Your task to perform on an android device: make emails show in primary in the gmail app Image 0: 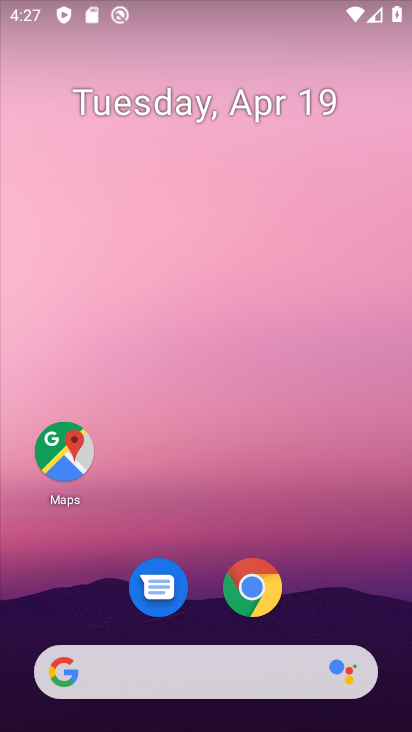
Step 0: drag from (339, 549) to (245, 37)
Your task to perform on an android device: make emails show in primary in the gmail app Image 1: 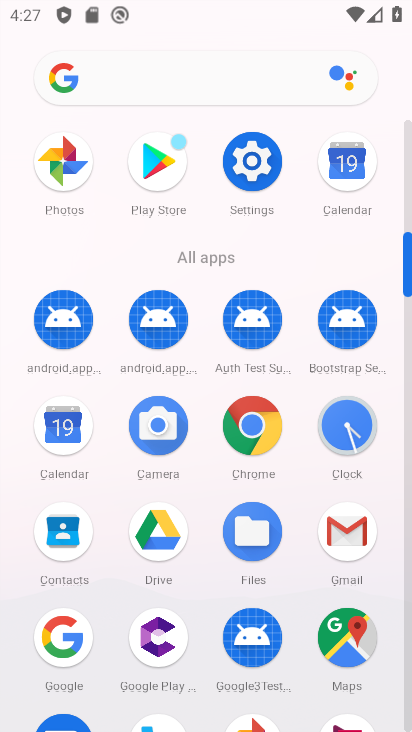
Step 1: drag from (22, 405) to (7, 169)
Your task to perform on an android device: make emails show in primary in the gmail app Image 2: 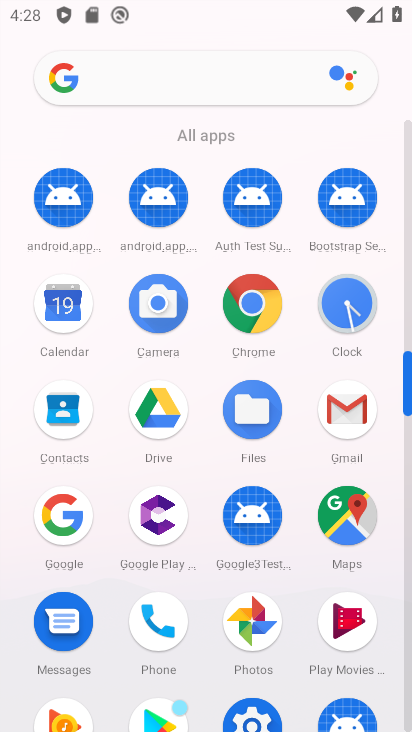
Step 2: click (346, 404)
Your task to perform on an android device: make emails show in primary in the gmail app Image 3: 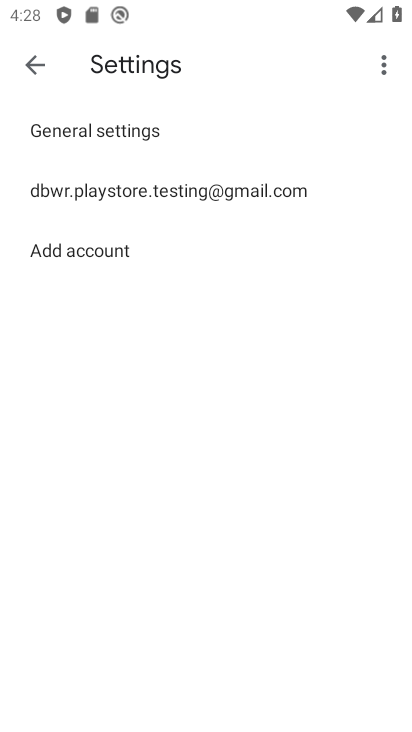
Step 3: click (53, 183)
Your task to perform on an android device: make emails show in primary in the gmail app Image 4: 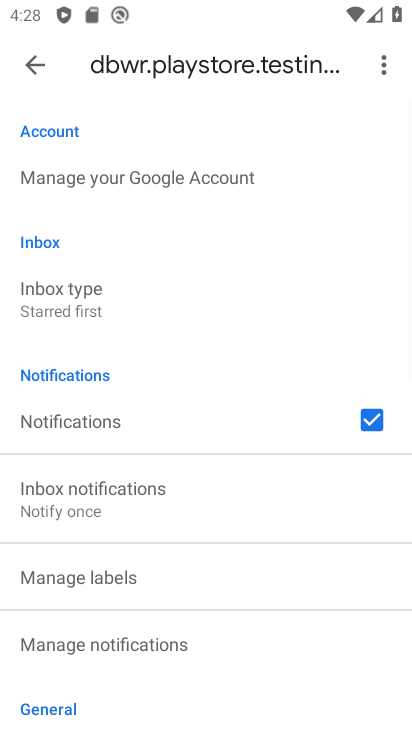
Step 4: click (85, 308)
Your task to perform on an android device: make emails show in primary in the gmail app Image 5: 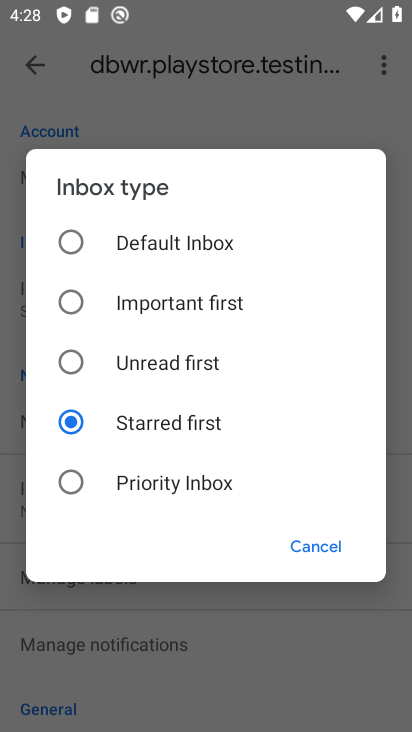
Step 5: click (171, 234)
Your task to perform on an android device: make emails show in primary in the gmail app Image 6: 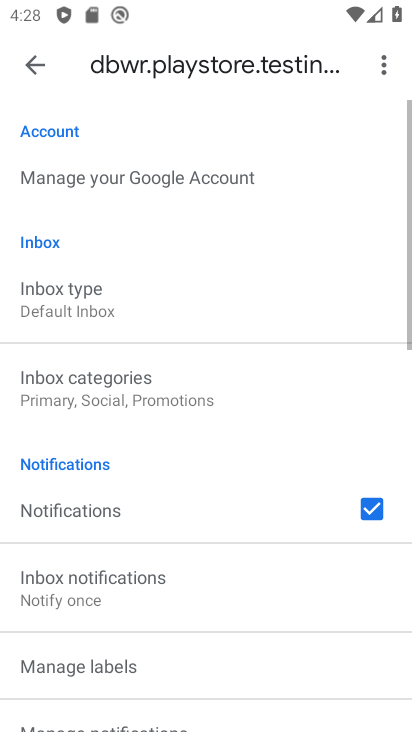
Step 6: click (121, 370)
Your task to perform on an android device: make emails show in primary in the gmail app Image 7: 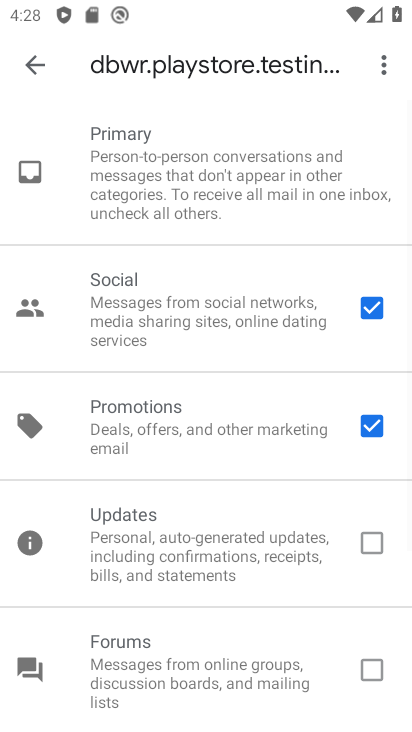
Step 7: click (369, 297)
Your task to perform on an android device: make emails show in primary in the gmail app Image 8: 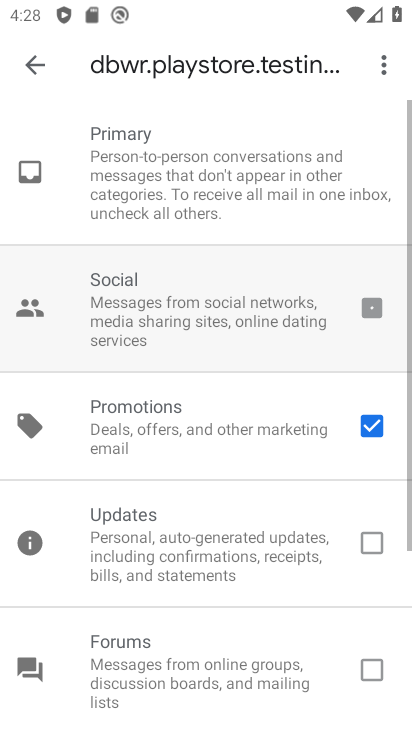
Step 8: click (367, 419)
Your task to perform on an android device: make emails show in primary in the gmail app Image 9: 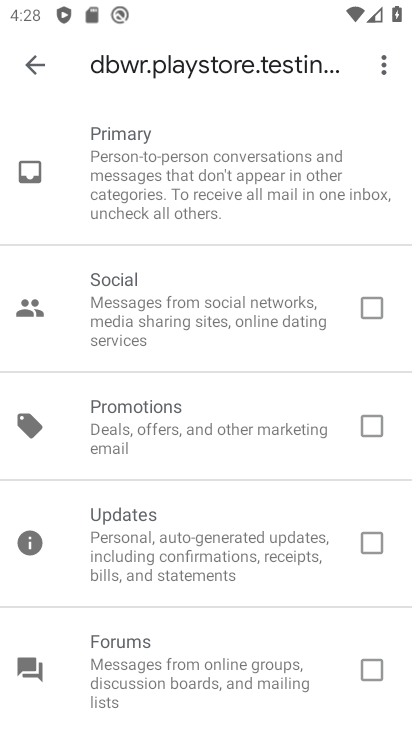
Step 9: click (21, 63)
Your task to perform on an android device: make emails show in primary in the gmail app Image 10: 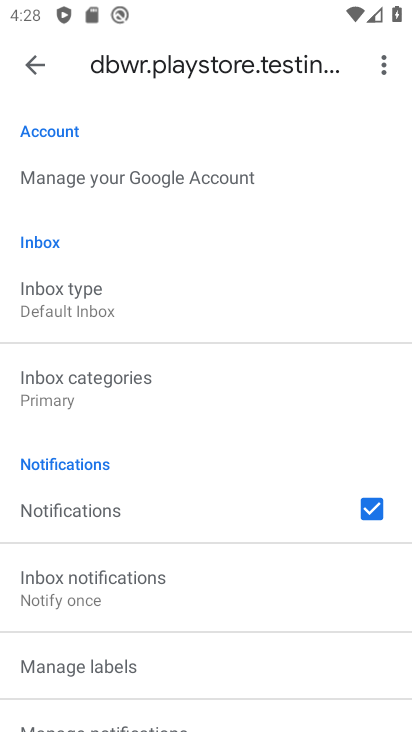
Step 10: task complete